Your task to perform on an android device: toggle notification dots Image 0: 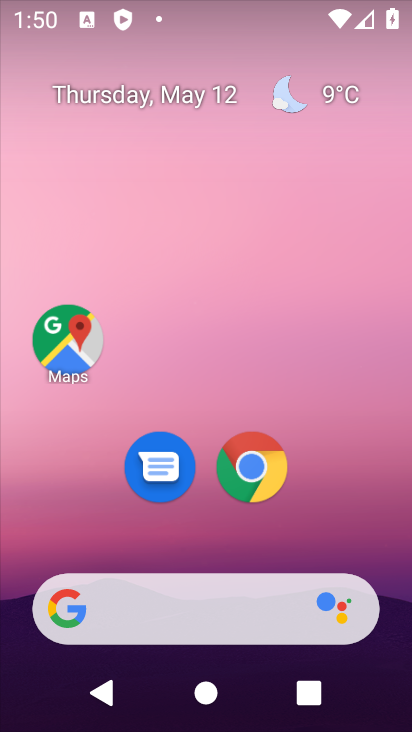
Step 0: drag from (338, 537) to (334, 160)
Your task to perform on an android device: toggle notification dots Image 1: 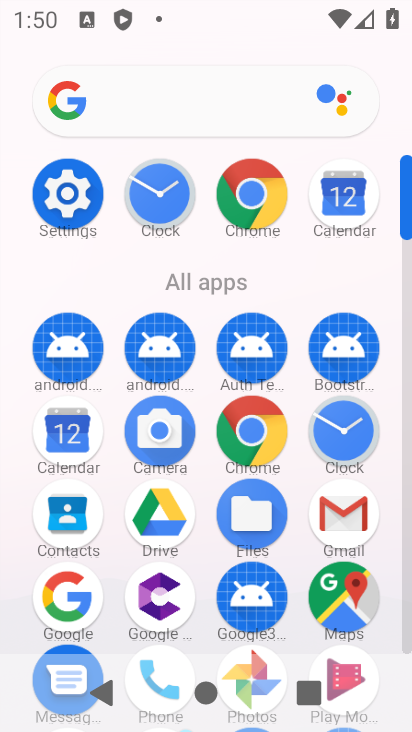
Step 1: click (69, 184)
Your task to perform on an android device: toggle notification dots Image 2: 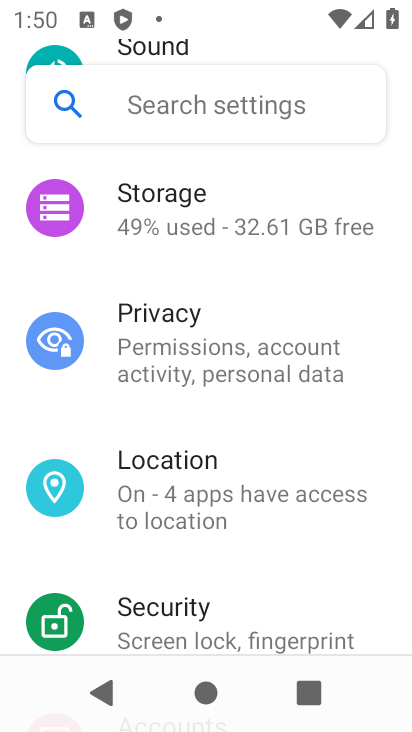
Step 2: click (236, 94)
Your task to perform on an android device: toggle notification dots Image 3: 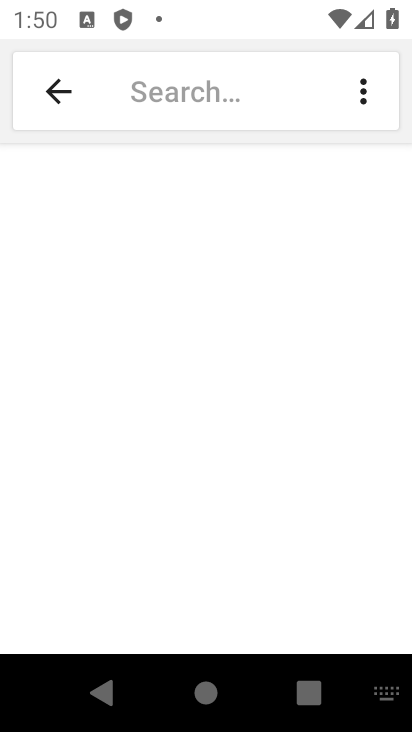
Step 3: click (258, 65)
Your task to perform on an android device: toggle notification dots Image 4: 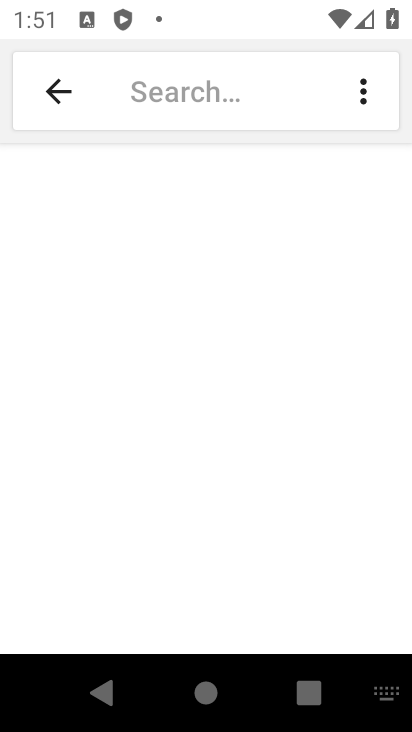
Step 4: type " notification dots"
Your task to perform on an android device: toggle notification dots Image 5: 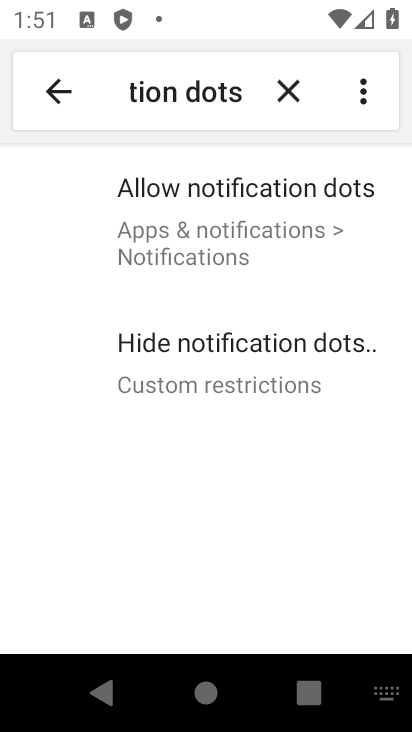
Step 5: click (225, 217)
Your task to perform on an android device: toggle notification dots Image 6: 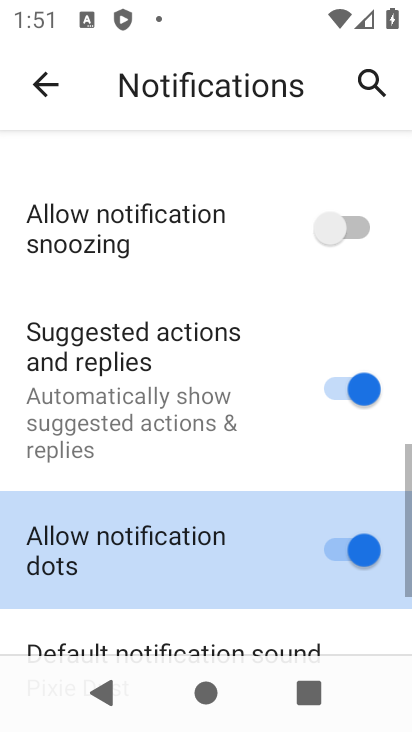
Step 6: click (352, 541)
Your task to perform on an android device: toggle notification dots Image 7: 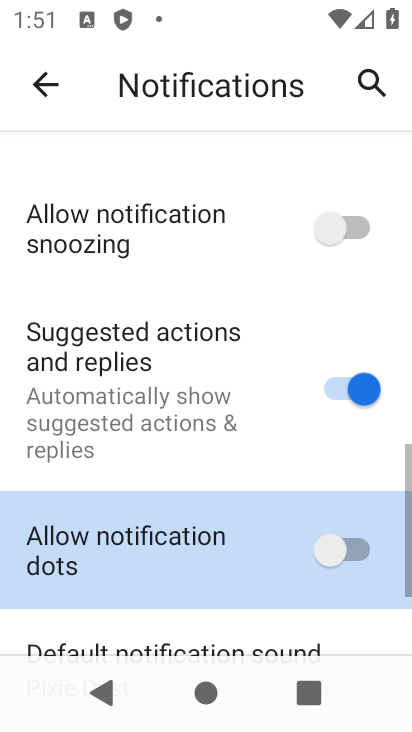
Step 7: task complete